Your task to perform on an android device: check storage Image 0: 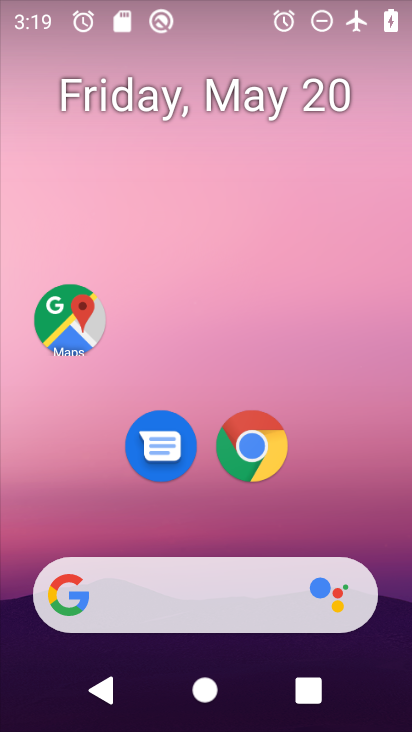
Step 0: drag from (374, 544) to (365, 15)
Your task to perform on an android device: check storage Image 1: 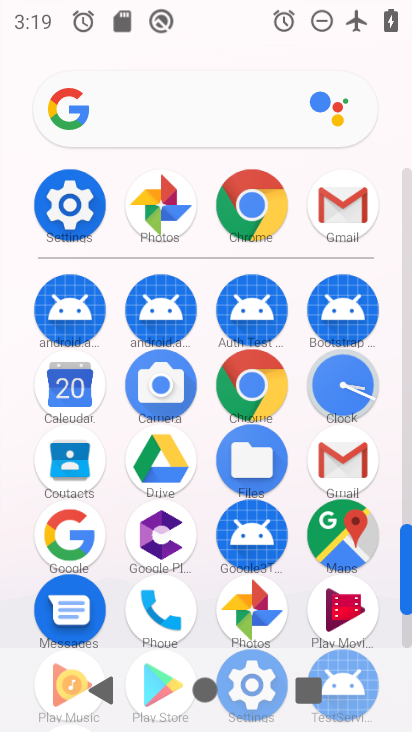
Step 1: click (65, 210)
Your task to perform on an android device: check storage Image 2: 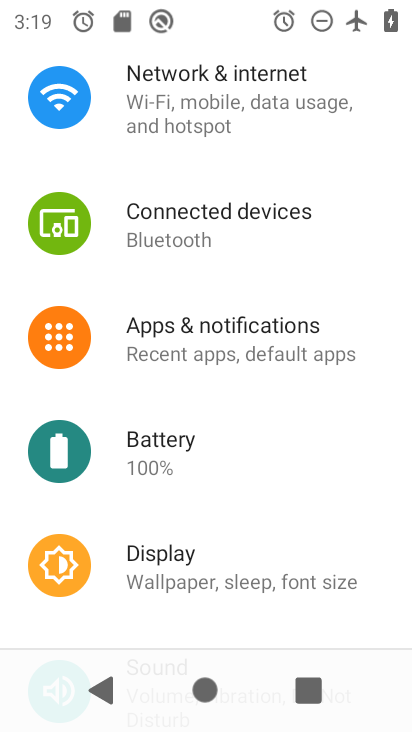
Step 2: drag from (294, 461) to (266, 165)
Your task to perform on an android device: check storage Image 3: 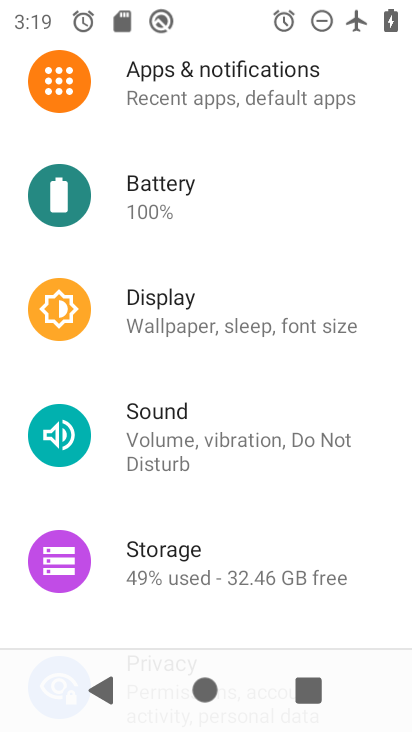
Step 3: click (159, 553)
Your task to perform on an android device: check storage Image 4: 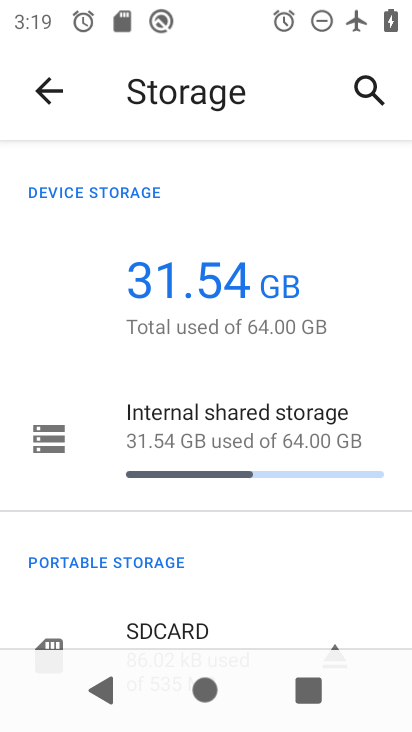
Step 4: drag from (254, 513) to (264, 358)
Your task to perform on an android device: check storage Image 5: 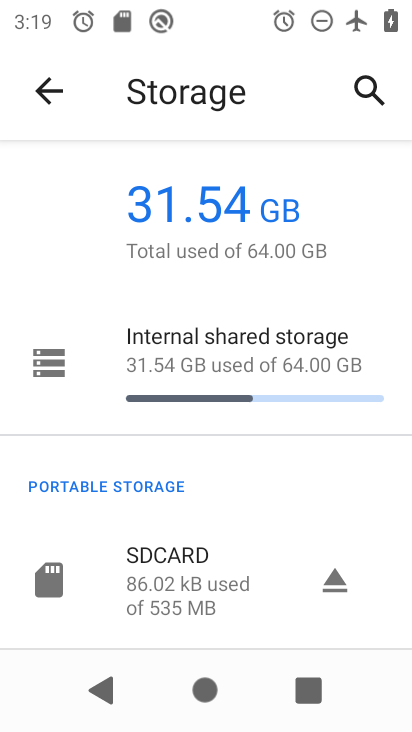
Step 5: click (215, 348)
Your task to perform on an android device: check storage Image 6: 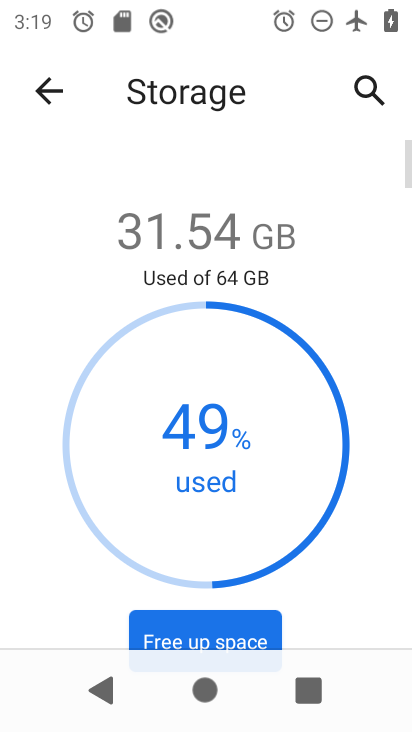
Step 6: task complete